Your task to perform on an android device: set an alarm Image 0: 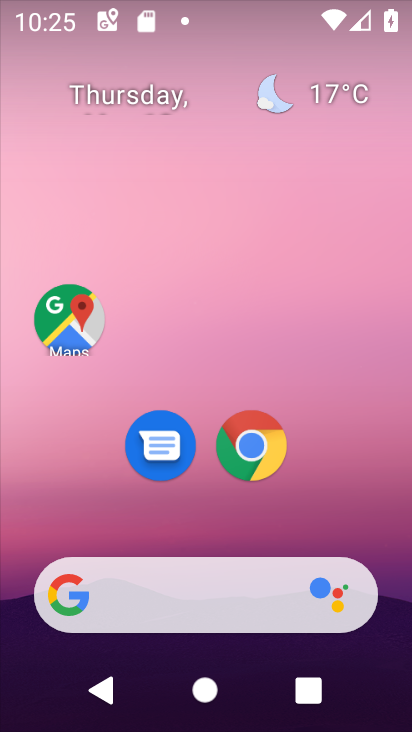
Step 0: drag from (225, 548) to (192, 187)
Your task to perform on an android device: set an alarm Image 1: 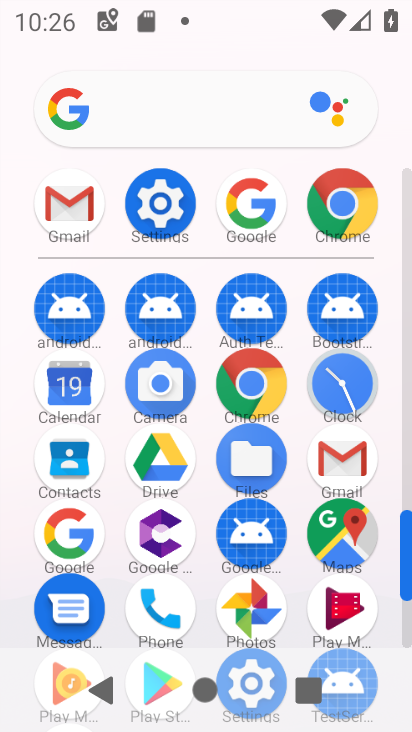
Step 1: click (338, 398)
Your task to perform on an android device: set an alarm Image 2: 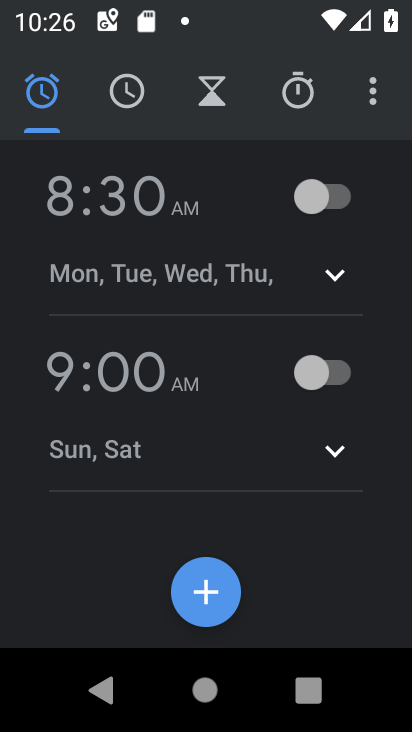
Step 2: click (230, 609)
Your task to perform on an android device: set an alarm Image 3: 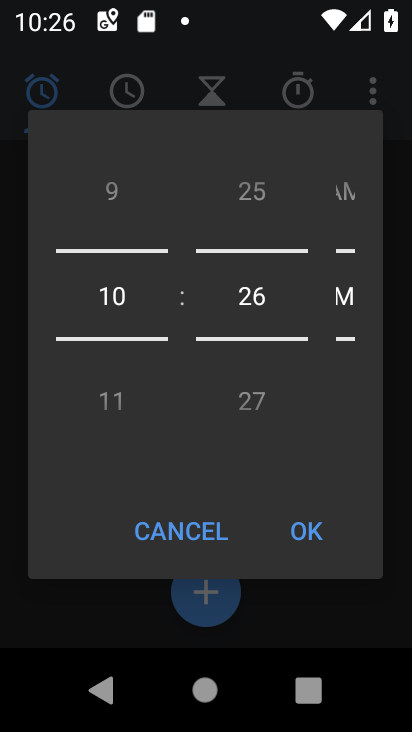
Step 3: click (293, 536)
Your task to perform on an android device: set an alarm Image 4: 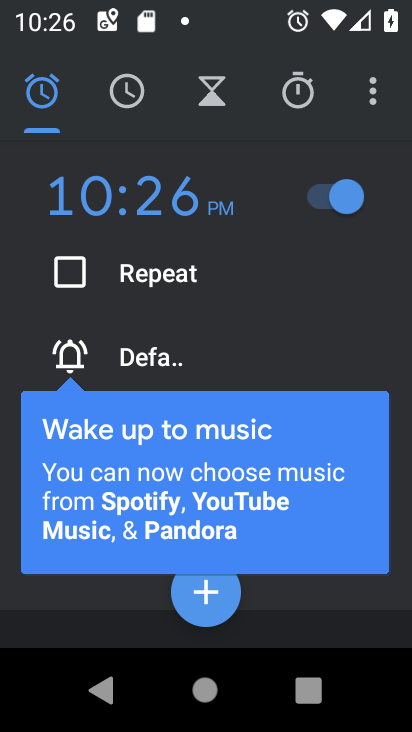
Step 4: task complete